Your task to perform on an android device: change text size in settings app Image 0: 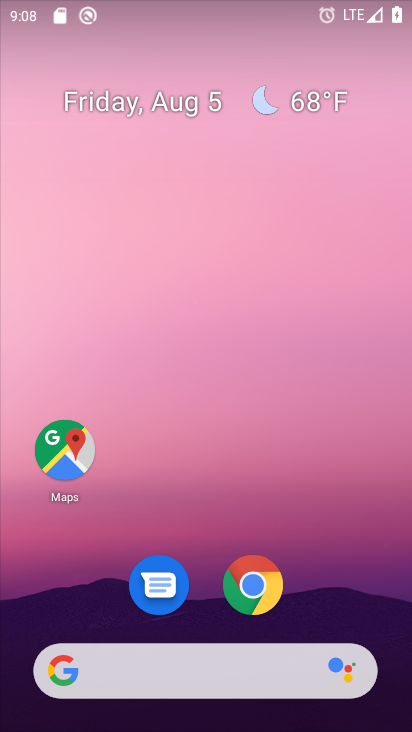
Step 0: drag from (199, 537) to (216, 15)
Your task to perform on an android device: change text size in settings app Image 1: 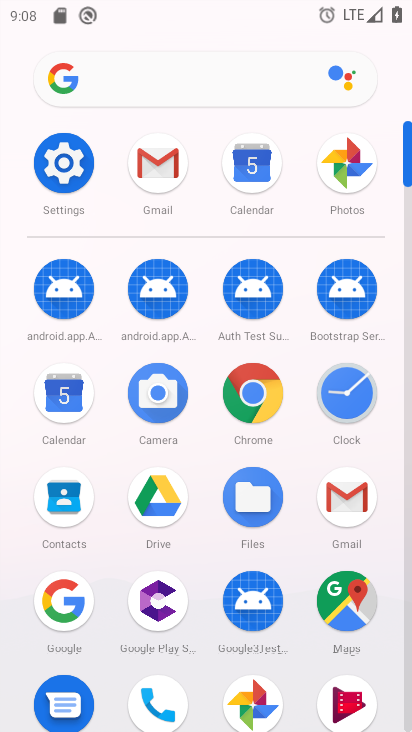
Step 1: click (64, 161)
Your task to perform on an android device: change text size in settings app Image 2: 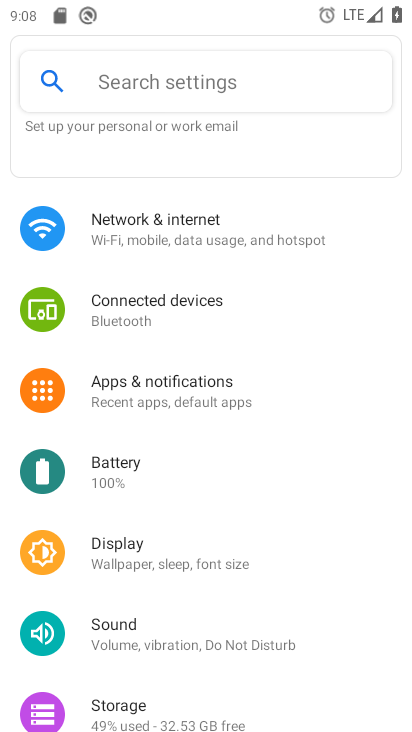
Step 2: click (161, 554)
Your task to perform on an android device: change text size in settings app Image 3: 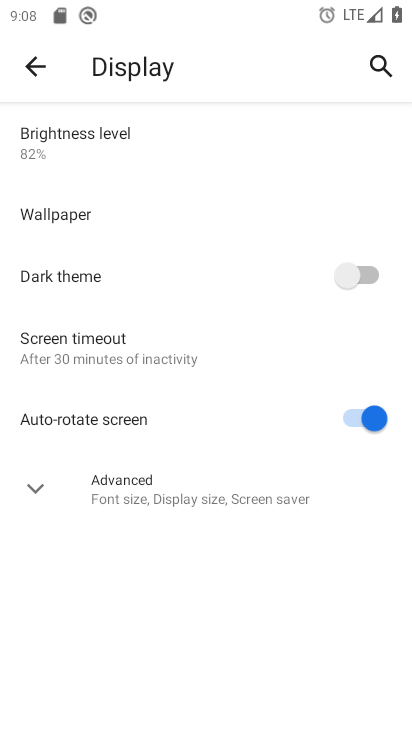
Step 3: click (29, 489)
Your task to perform on an android device: change text size in settings app Image 4: 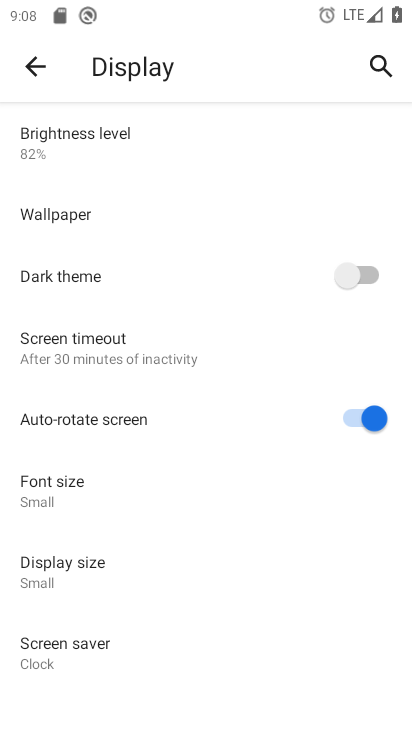
Step 4: click (58, 561)
Your task to perform on an android device: change text size in settings app Image 5: 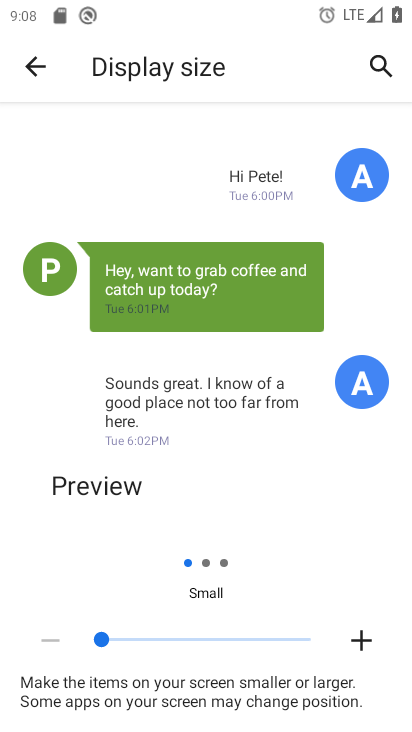
Step 5: click (30, 71)
Your task to perform on an android device: change text size in settings app Image 6: 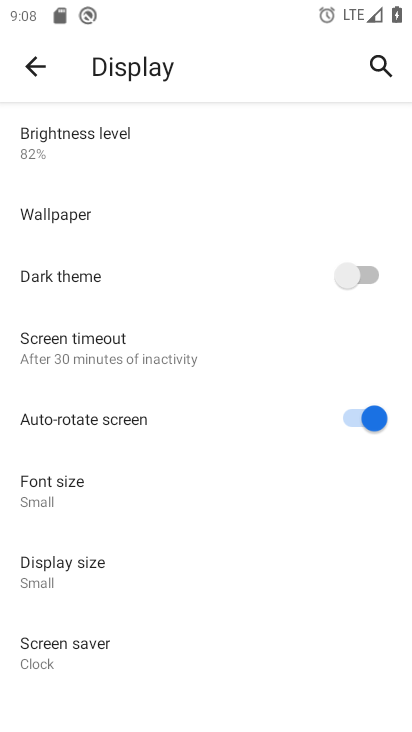
Step 6: click (46, 477)
Your task to perform on an android device: change text size in settings app Image 7: 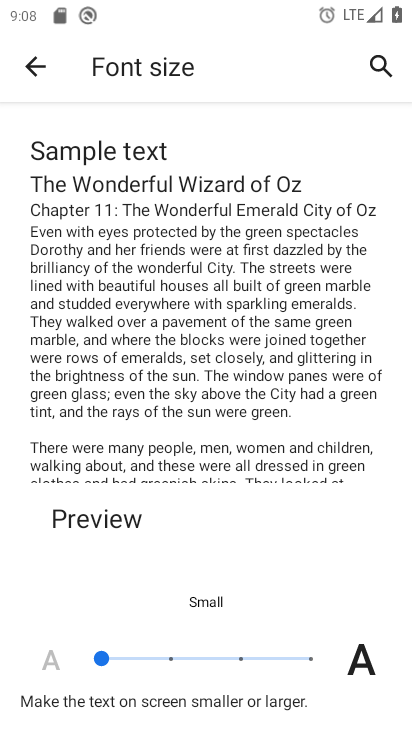
Step 7: click (171, 655)
Your task to perform on an android device: change text size in settings app Image 8: 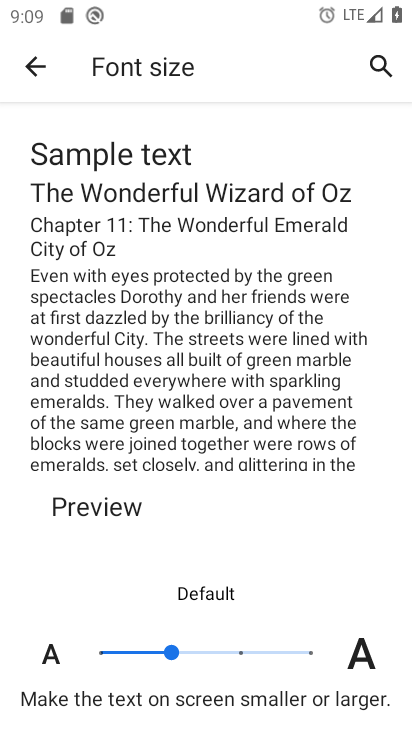
Step 8: click (37, 64)
Your task to perform on an android device: change text size in settings app Image 9: 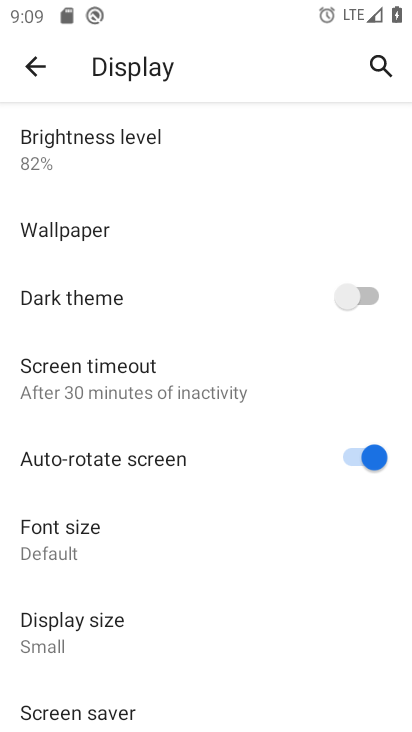
Step 9: click (40, 64)
Your task to perform on an android device: change text size in settings app Image 10: 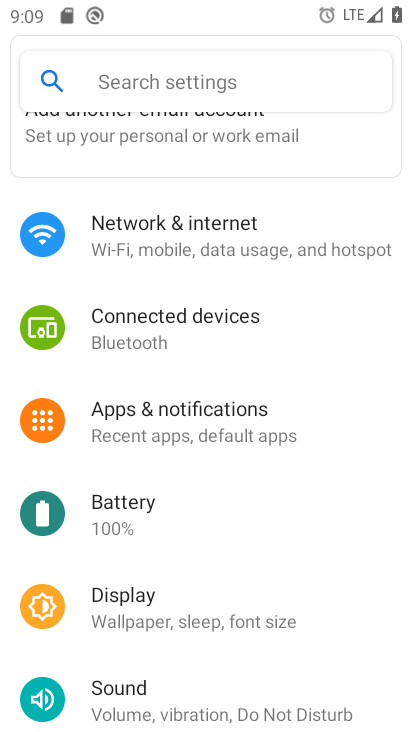
Step 10: task complete